Your task to perform on an android device: Open the Play Movies app and select the watchlist tab. Image 0: 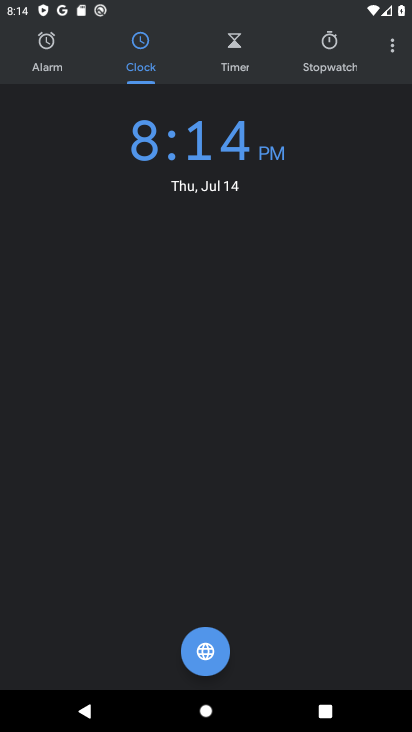
Step 0: press back button
Your task to perform on an android device: Open the Play Movies app and select the watchlist tab. Image 1: 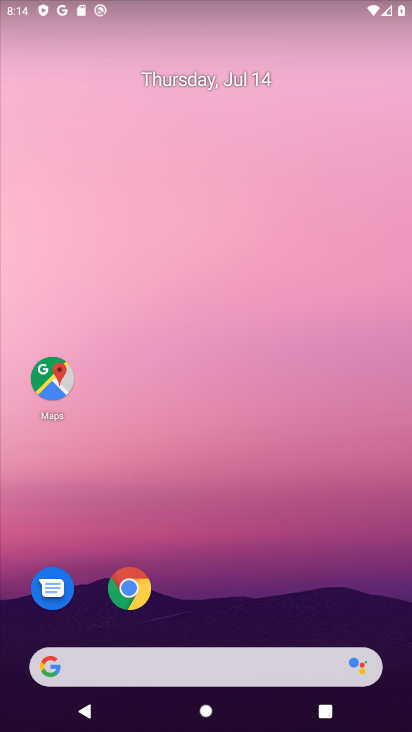
Step 1: drag from (249, 495) to (230, 119)
Your task to perform on an android device: Open the Play Movies app and select the watchlist tab. Image 2: 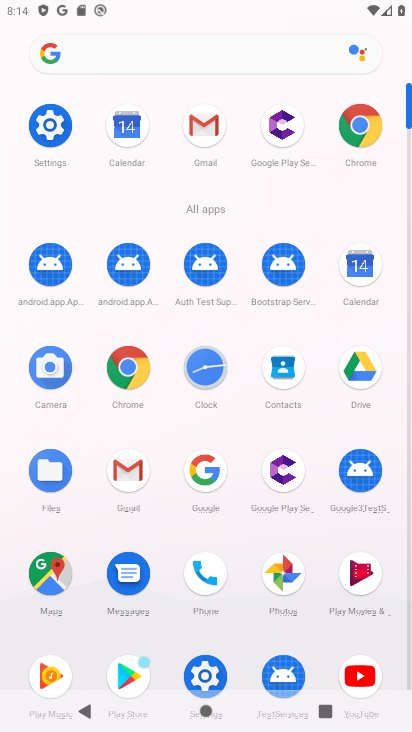
Step 2: click (361, 575)
Your task to perform on an android device: Open the Play Movies app and select the watchlist tab. Image 3: 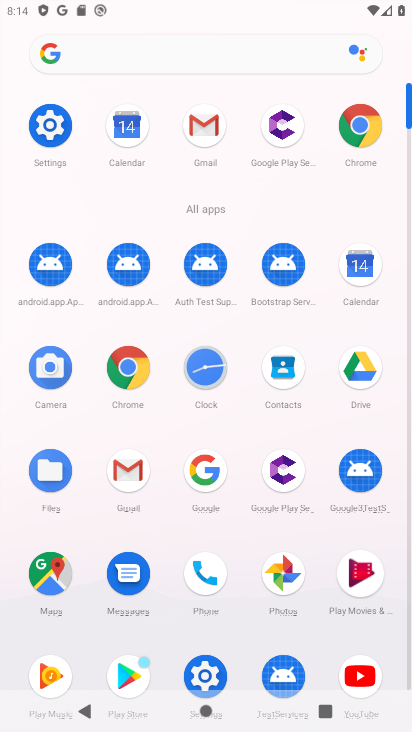
Step 3: click (364, 575)
Your task to perform on an android device: Open the Play Movies app and select the watchlist tab. Image 4: 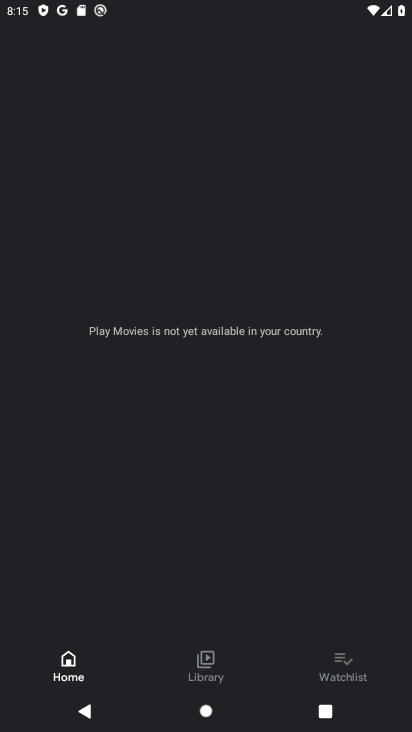
Step 4: click (344, 667)
Your task to perform on an android device: Open the Play Movies app and select the watchlist tab. Image 5: 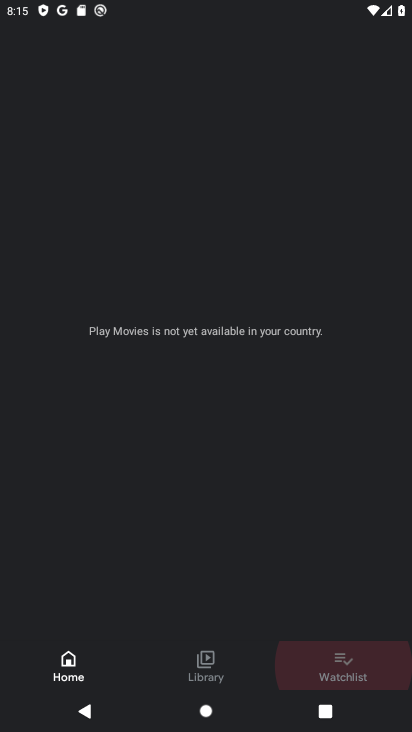
Step 5: click (343, 667)
Your task to perform on an android device: Open the Play Movies app and select the watchlist tab. Image 6: 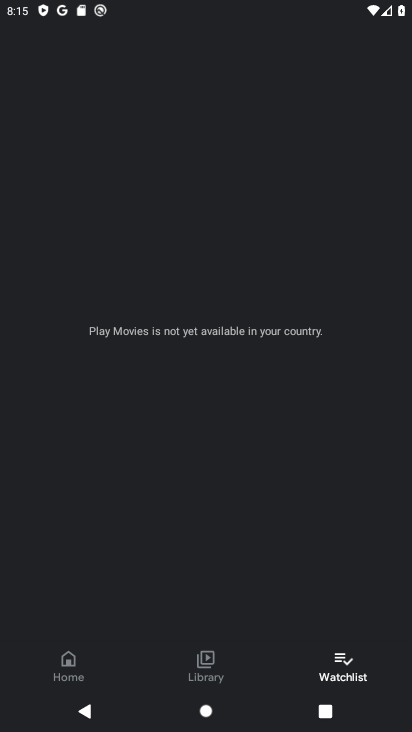
Step 6: task complete